Your task to perform on an android device: Open Reddit.com Image 0: 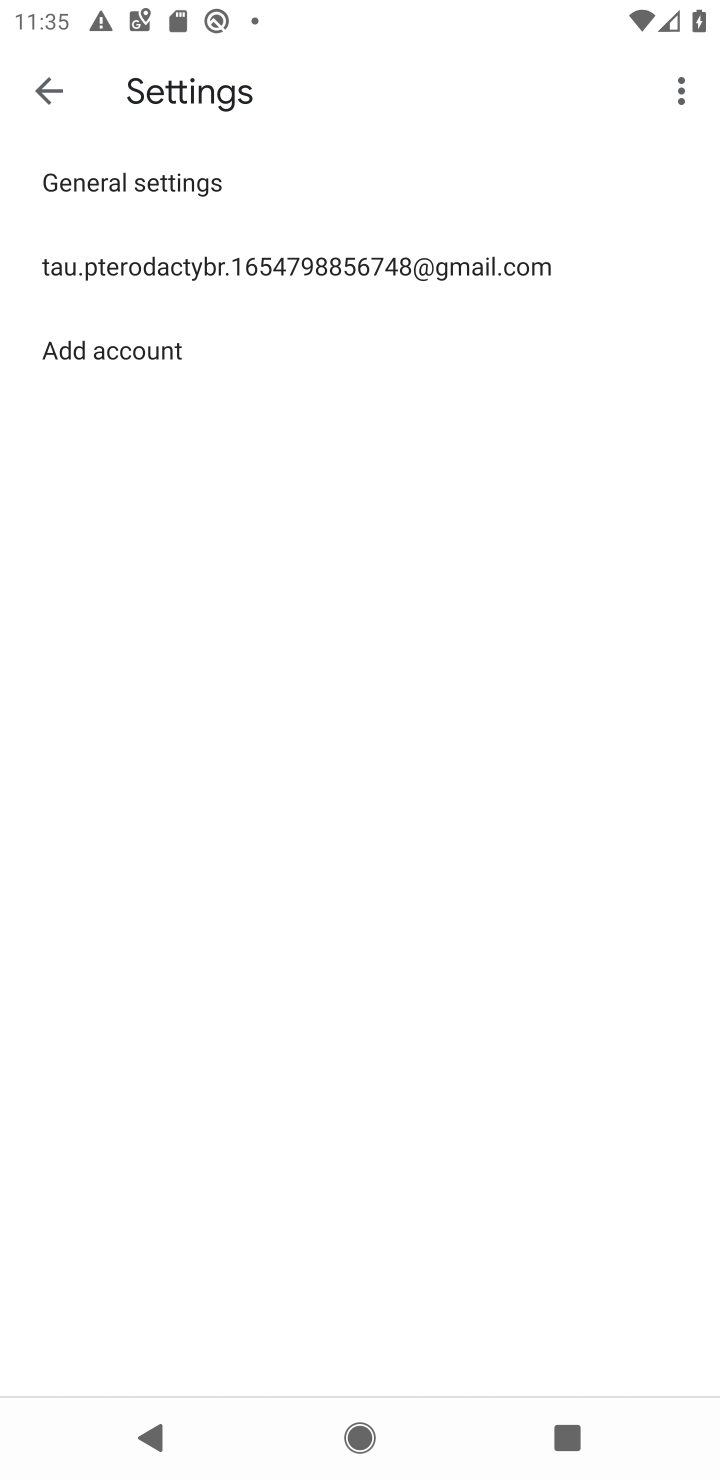
Step 0: press home button
Your task to perform on an android device: Open Reddit.com Image 1: 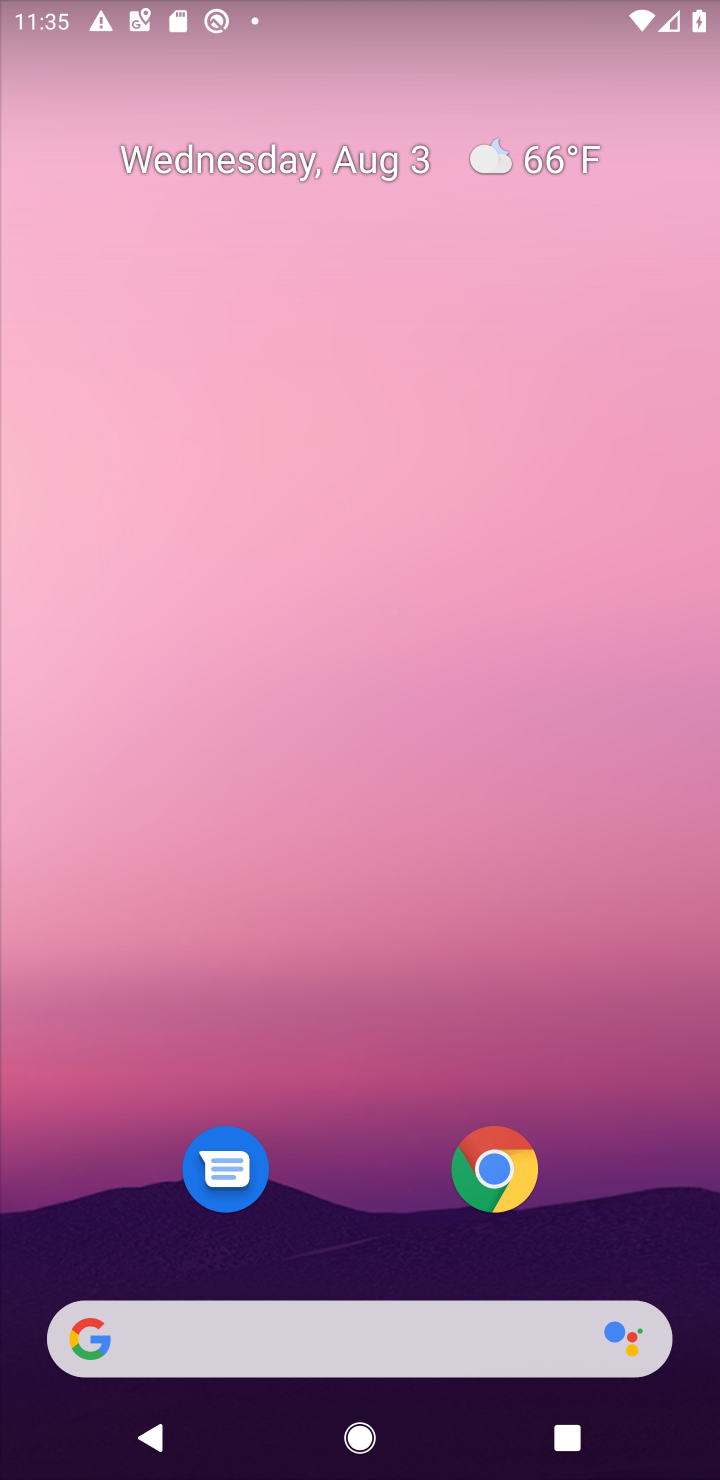
Step 1: click (503, 1166)
Your task to perform on an android device: Open Reddit.com Image 2: 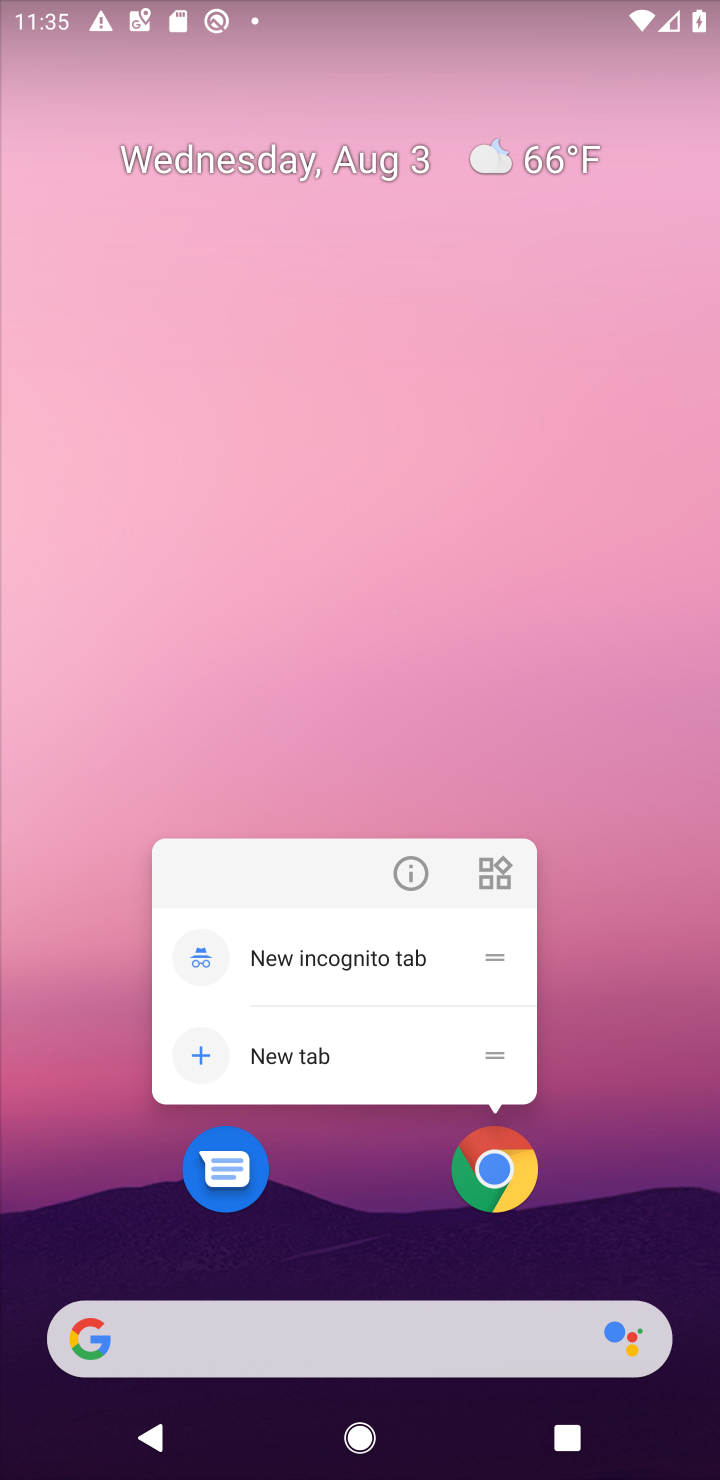
Step 2: click (491, 1184)
Your task to perform on an android device: Open Reddit.com Image 3: 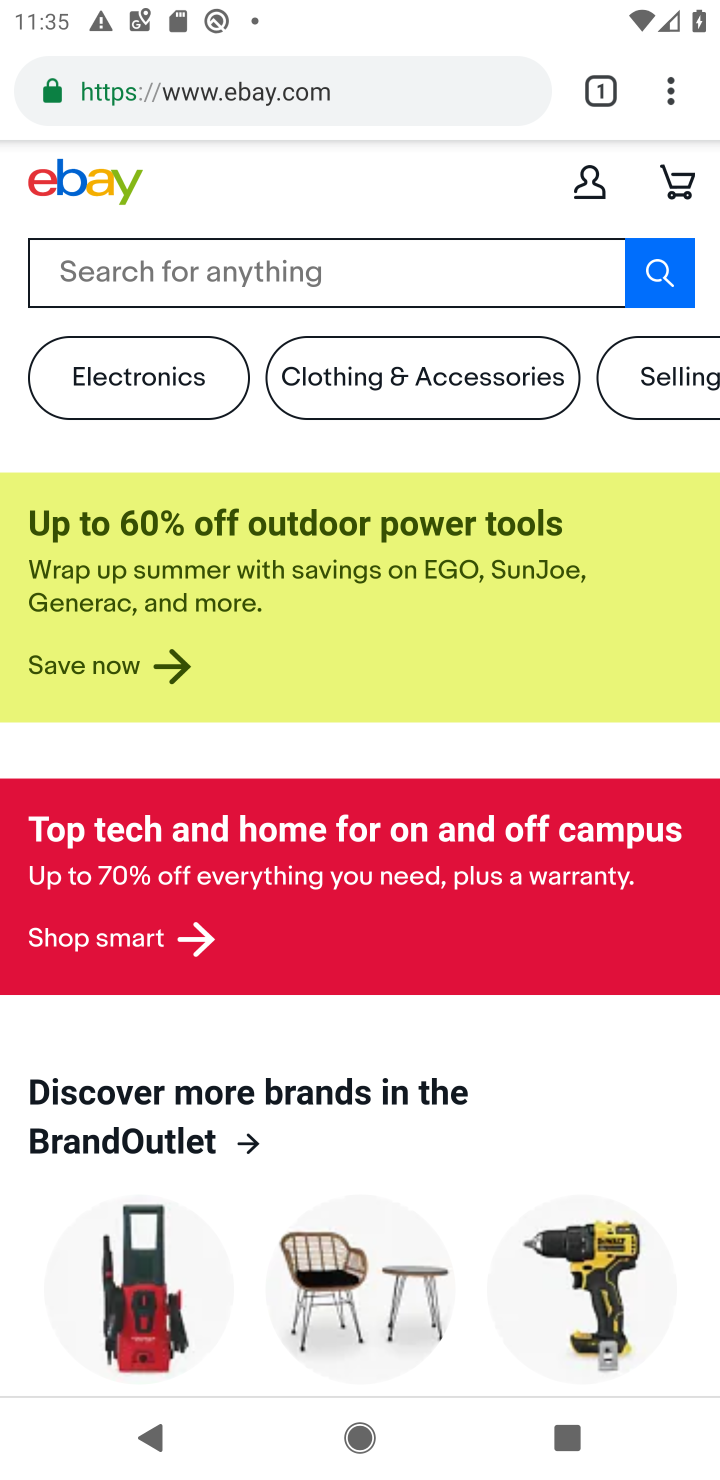
Step 3: click (231, 99)
Your task to perform on an android device: Open Reddit.com Image 4: 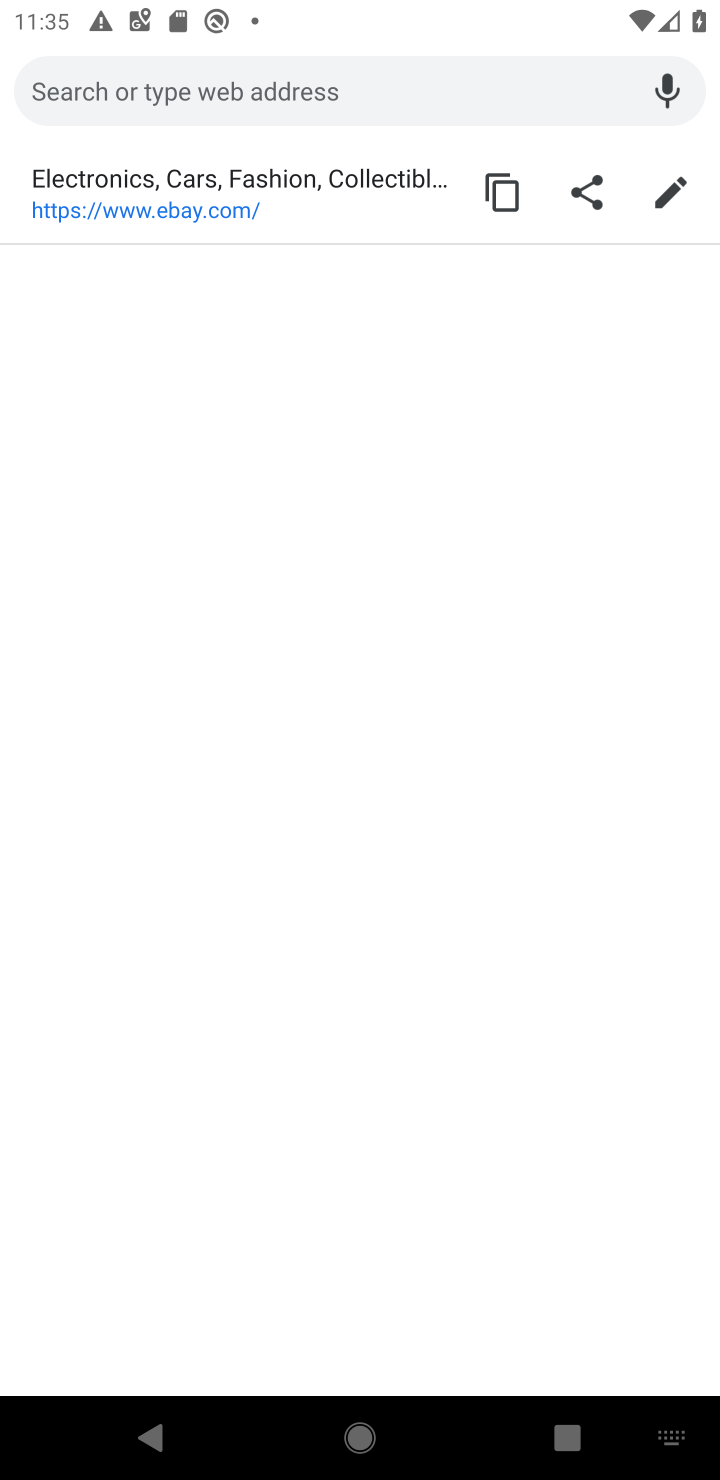
Step 4: type "reddit.com"
Your task to perform on an android device: Open Reddit.com Image 5: 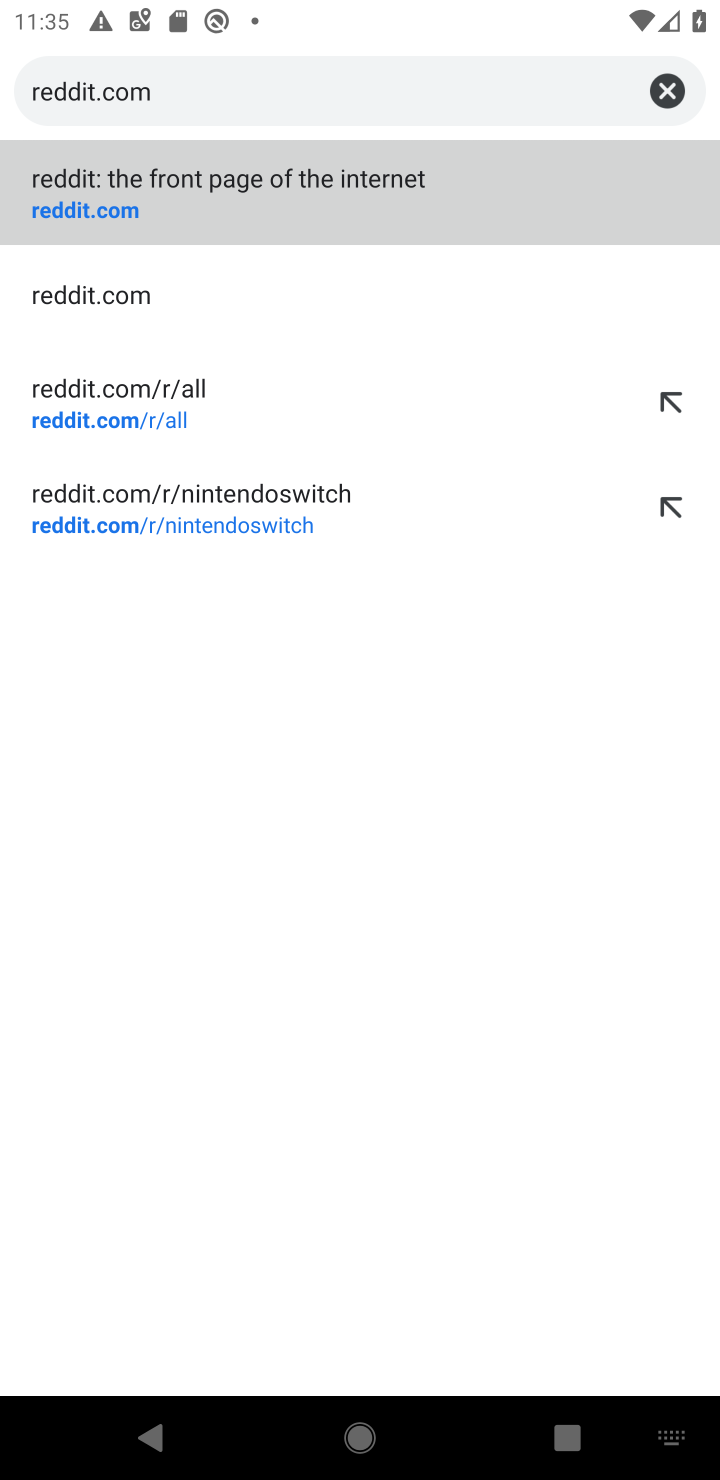
Step 5: click (56, 207)
Your task to perform on an android device: Open Reddit.com Image 6: 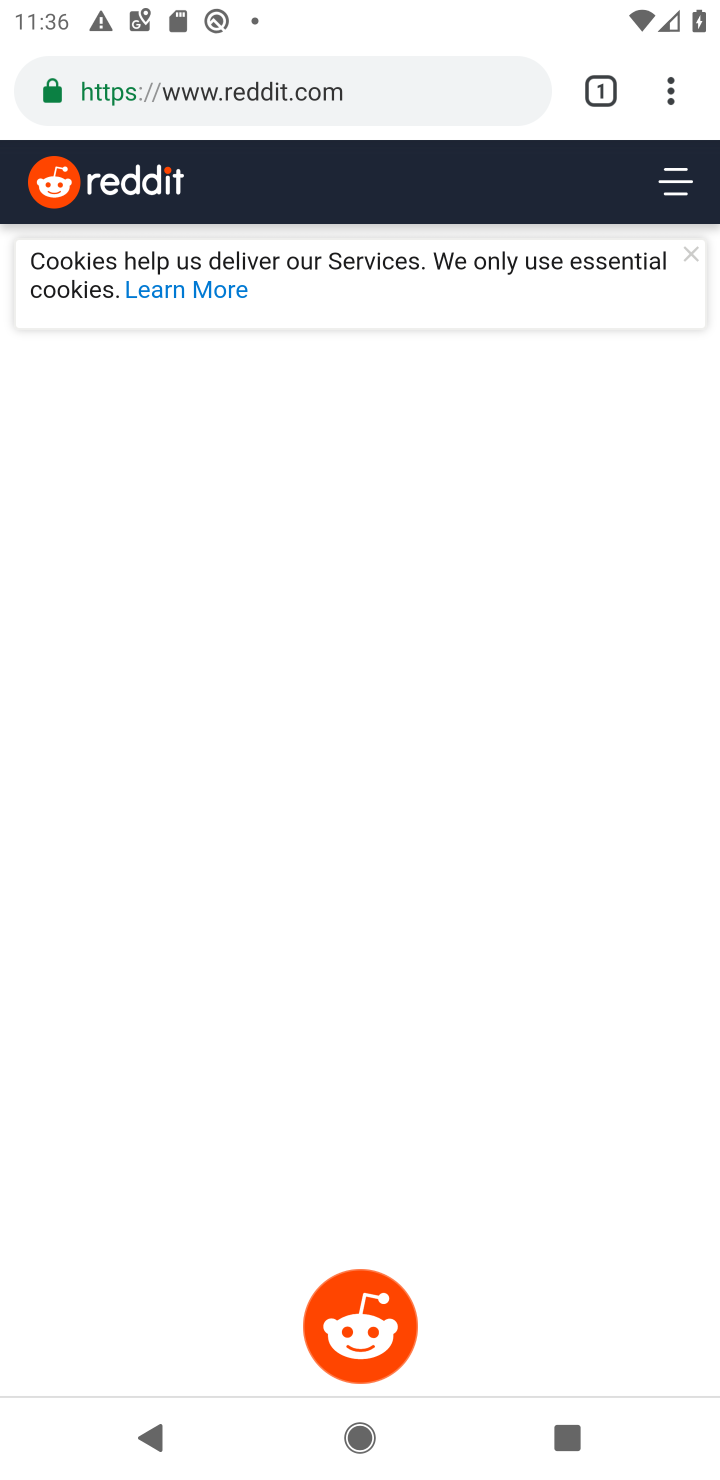
Step 6: task complete